Your task to perform on an android device: toggle location history Image 0: 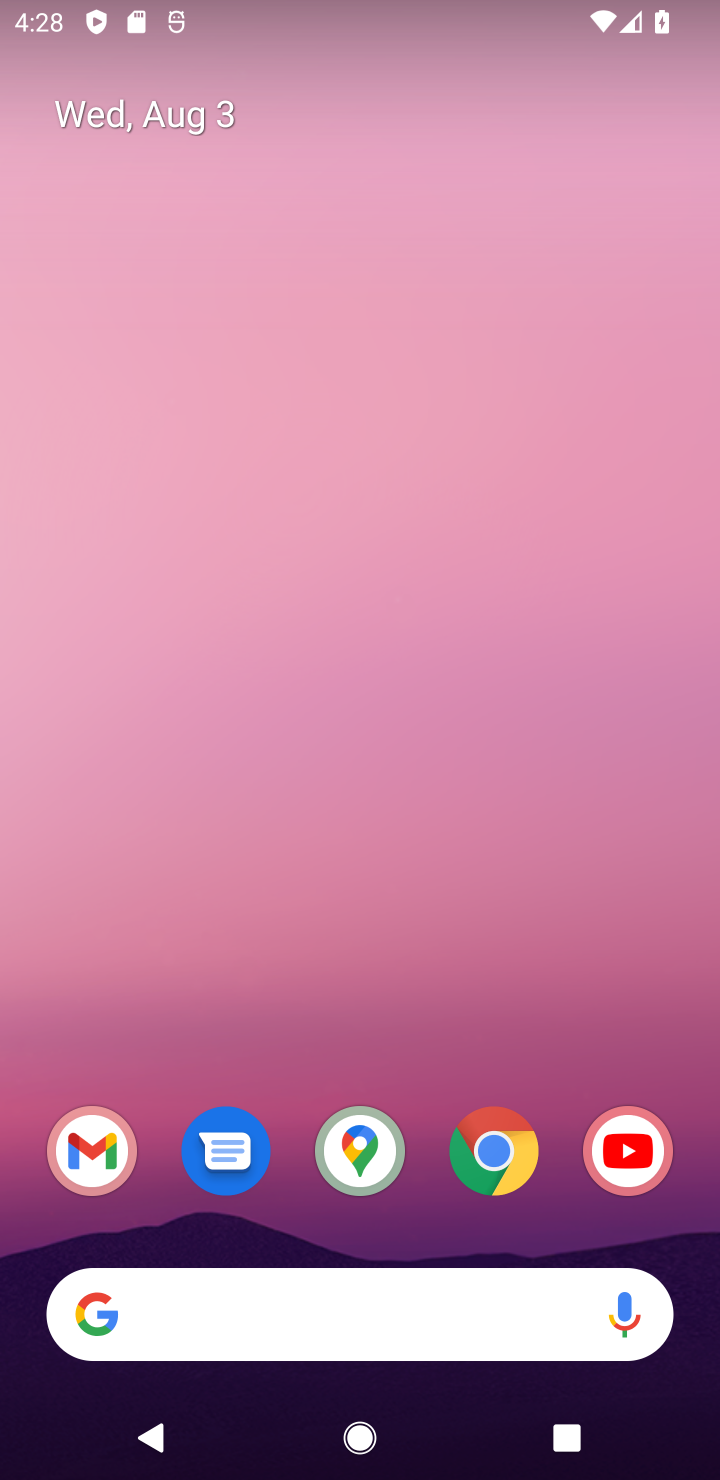
Step 0: drag from (369, 1049) to (314, 503)
Your task to perform on an android device: toggle location history Image 1: 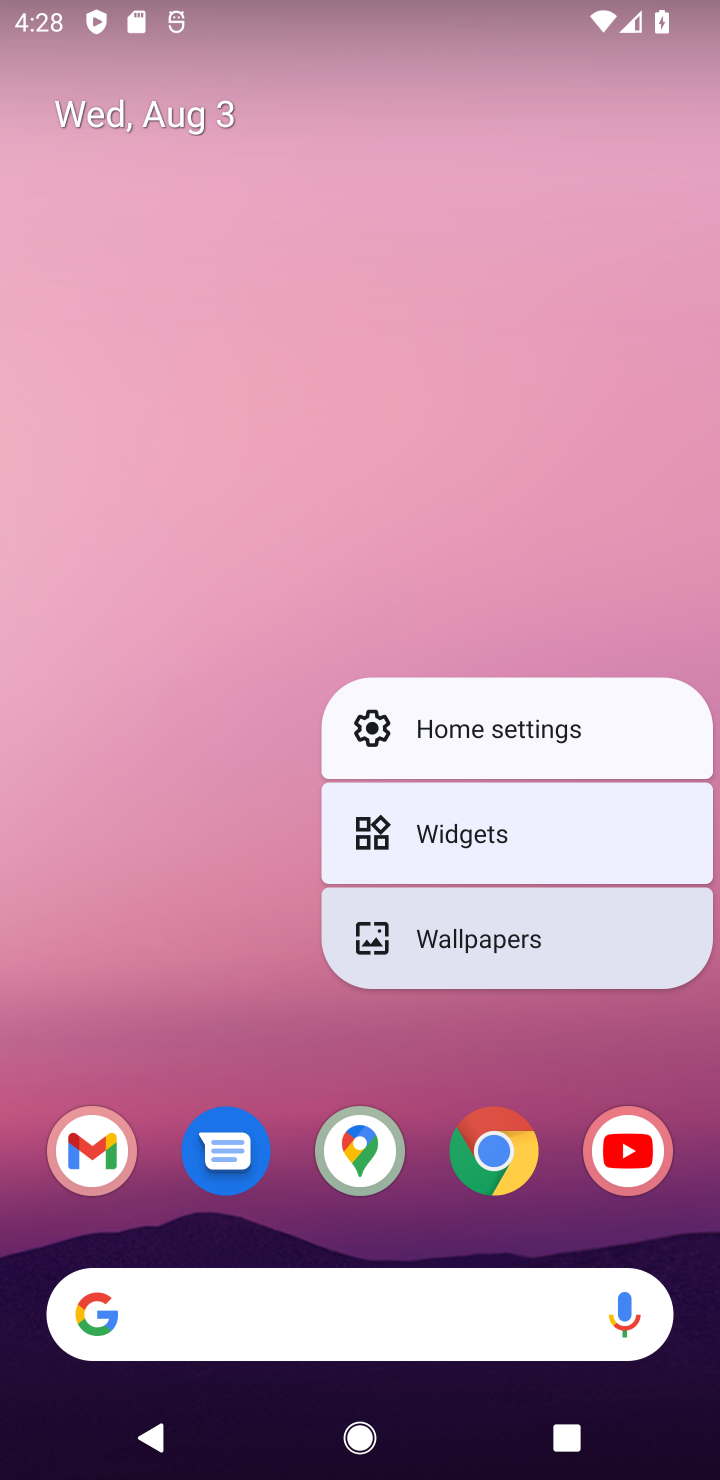
Step 1: click (217, 1037)
Your task to perform on an android device: toggle location history Image 2: 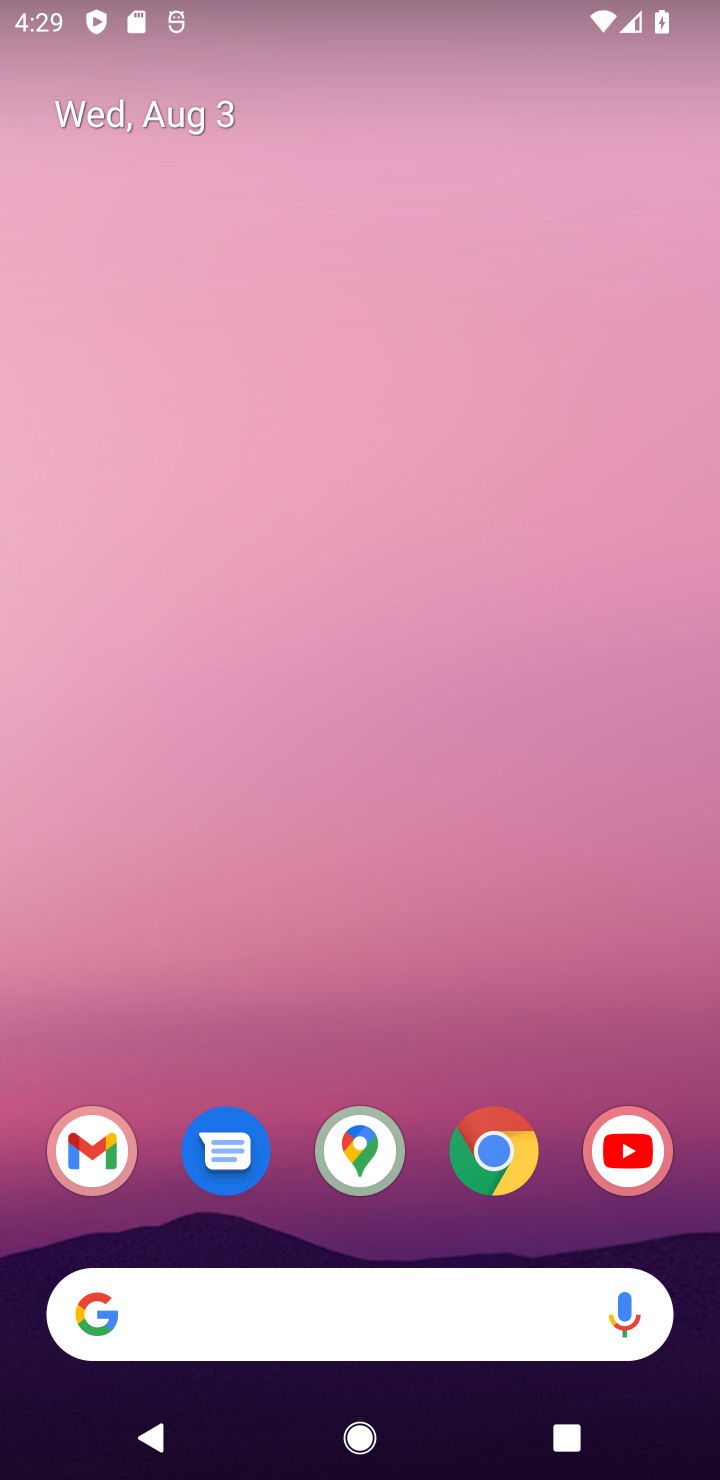
Step 2: drag from (217, 1037) to (222, 357)
Your task to perform on an android device: toggle location history Image 3: 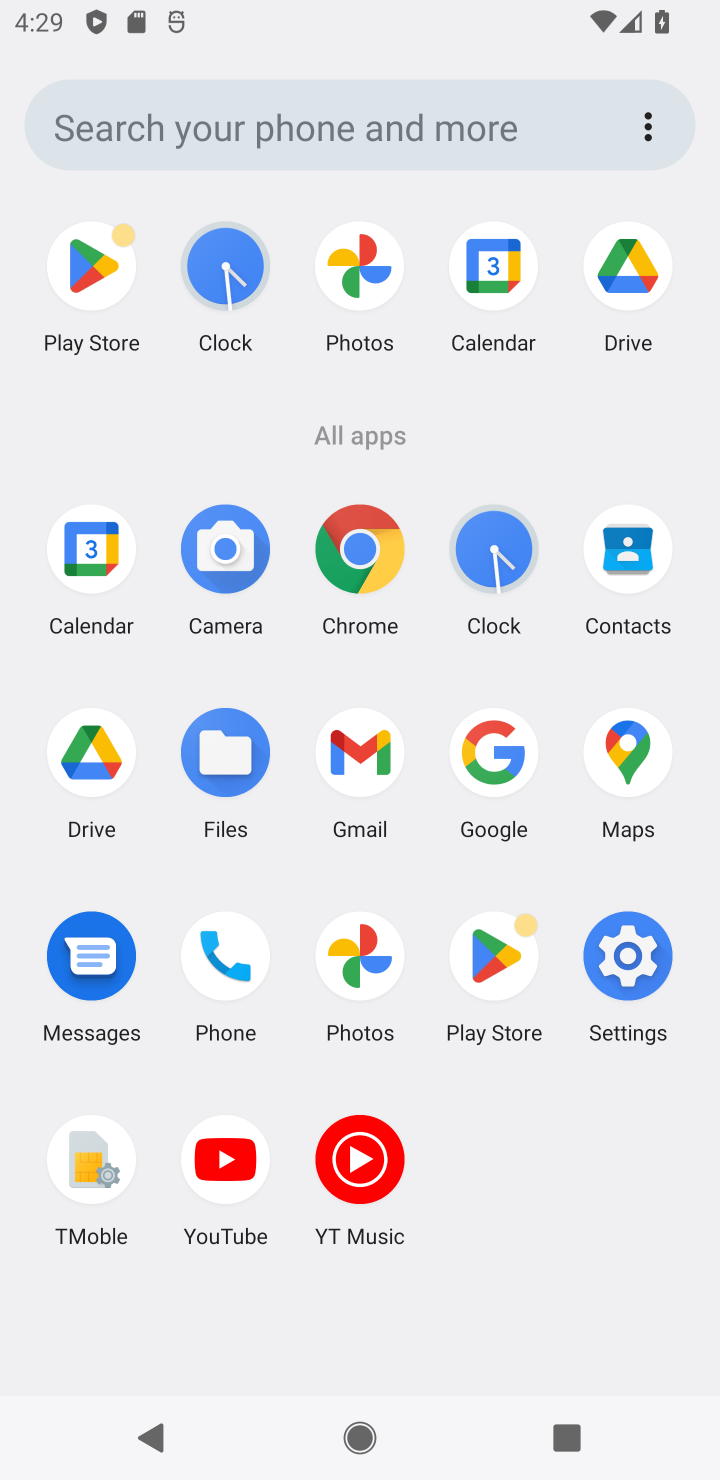
Step 3: click (613, 956)
Your task to perform on an android device: toggle location history Image 4: 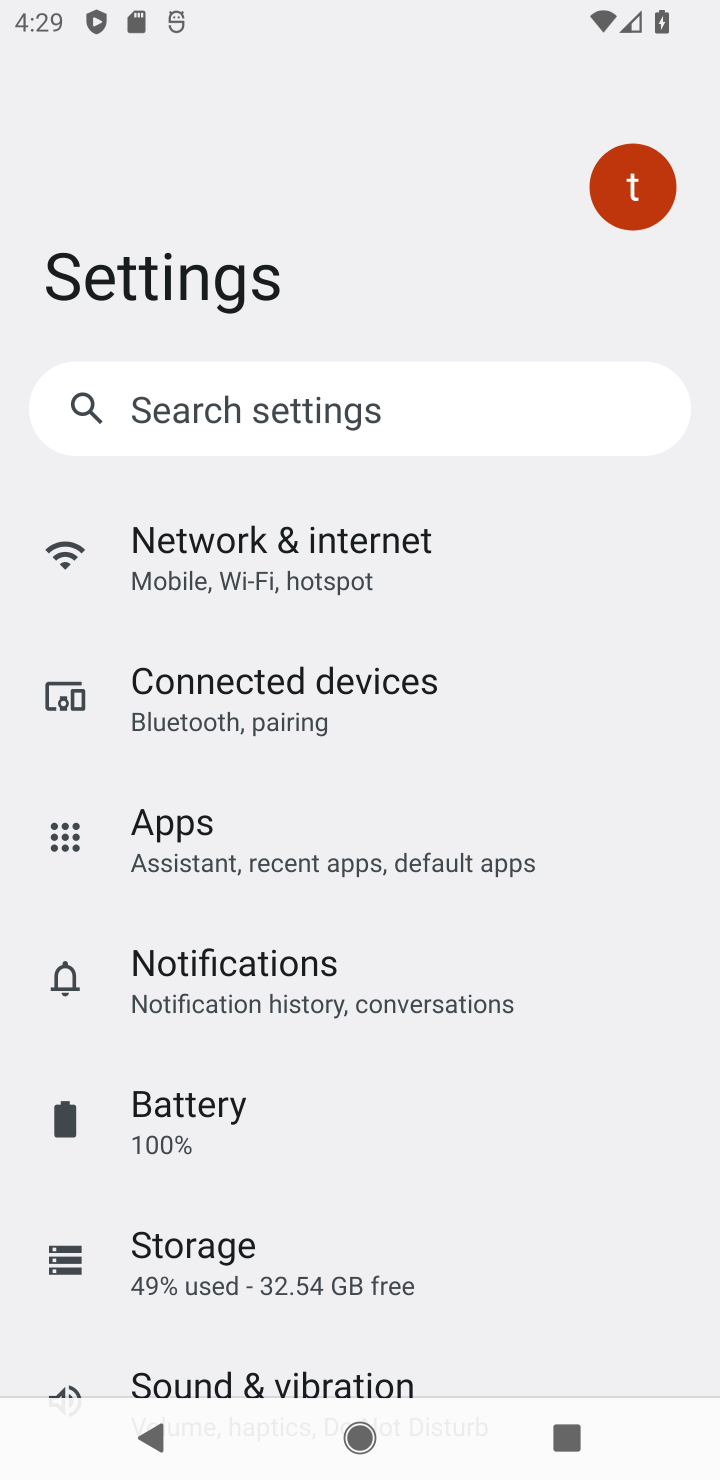
Step 4: drag from (632, 1226) to (538, 445)
Your task to perform on an android device: toggle location history Image 5: 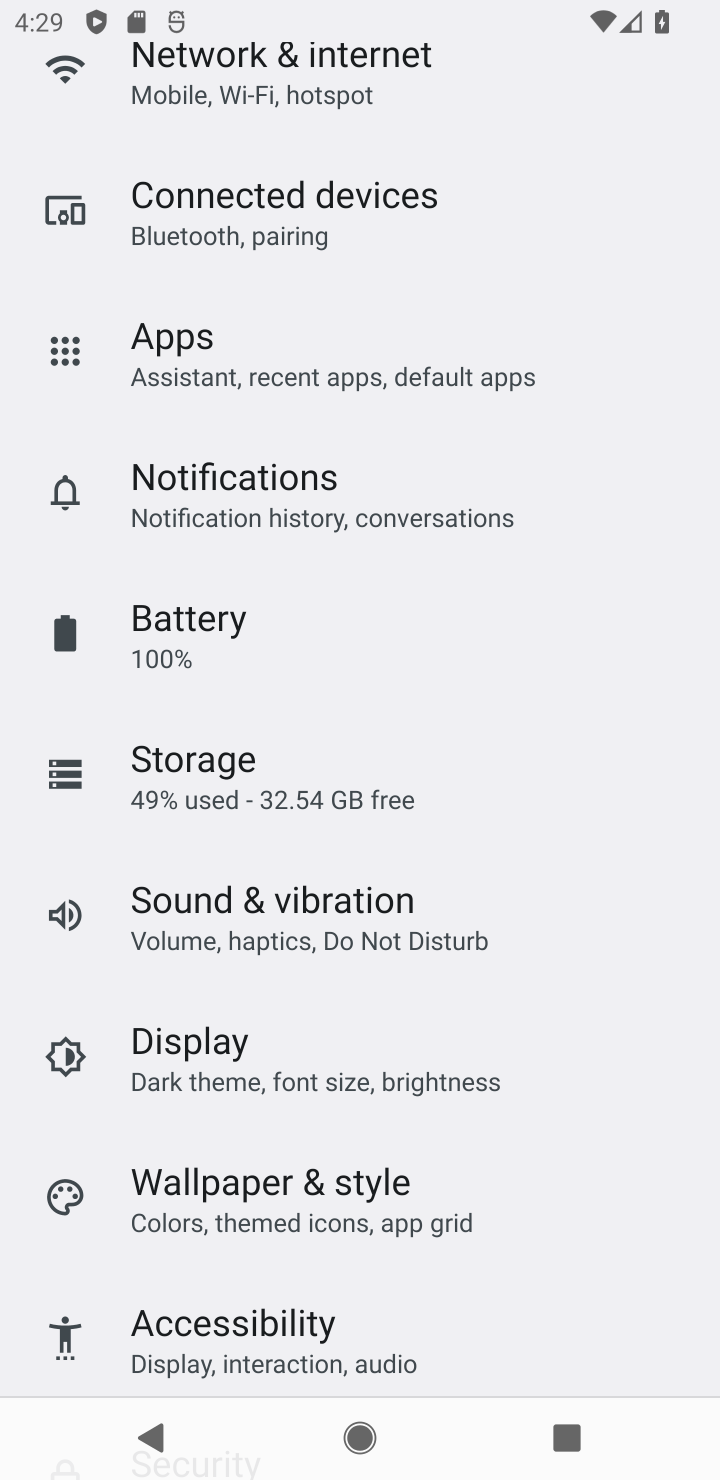
Step 5: drag from (514, 1237) to (381, 555)
Your task to perform on an android device: toggle location history Image 6: 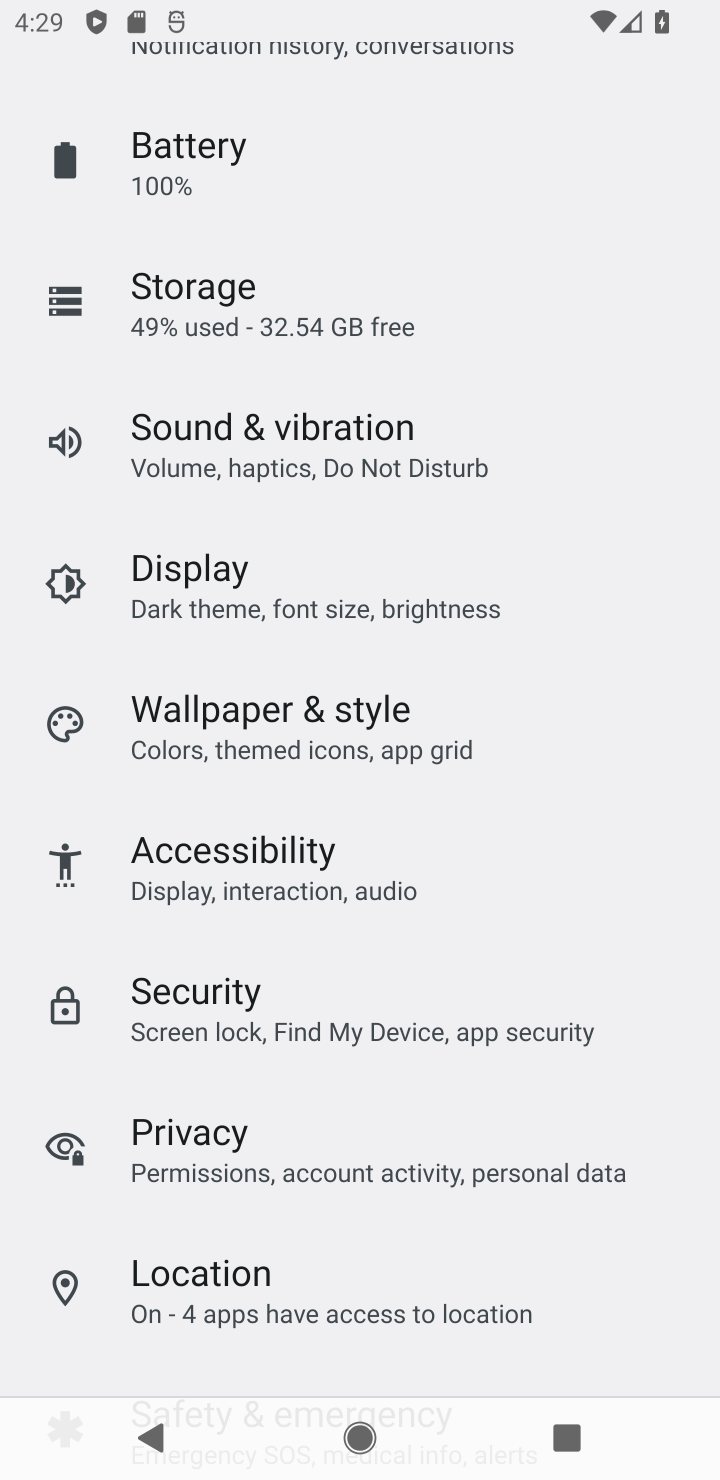
Step 6: click (427, 1285)
Your task to perform on an android device: toggle location history Image 7: 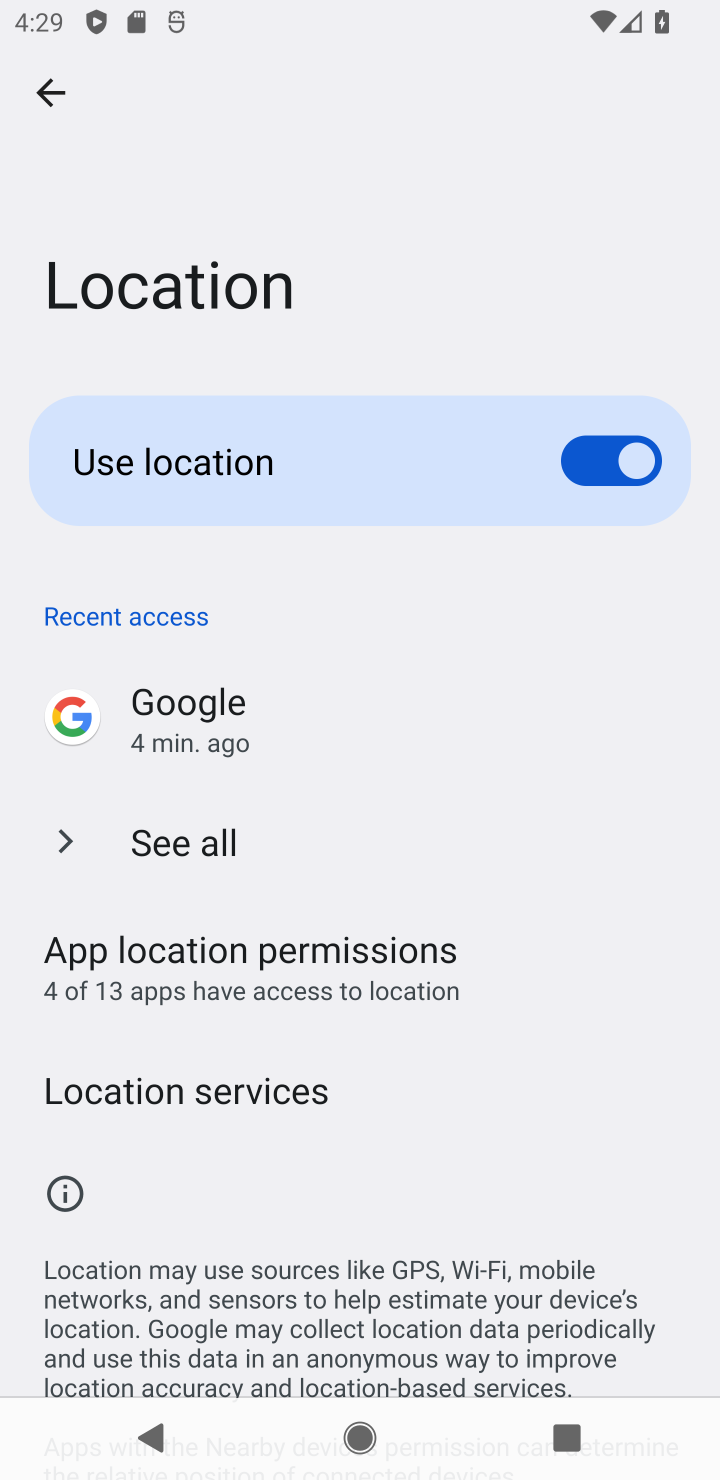
Step 7: drag from (368, 1185) to (344, 785)
Your task to perform on an android device: toggle location history Image 8: 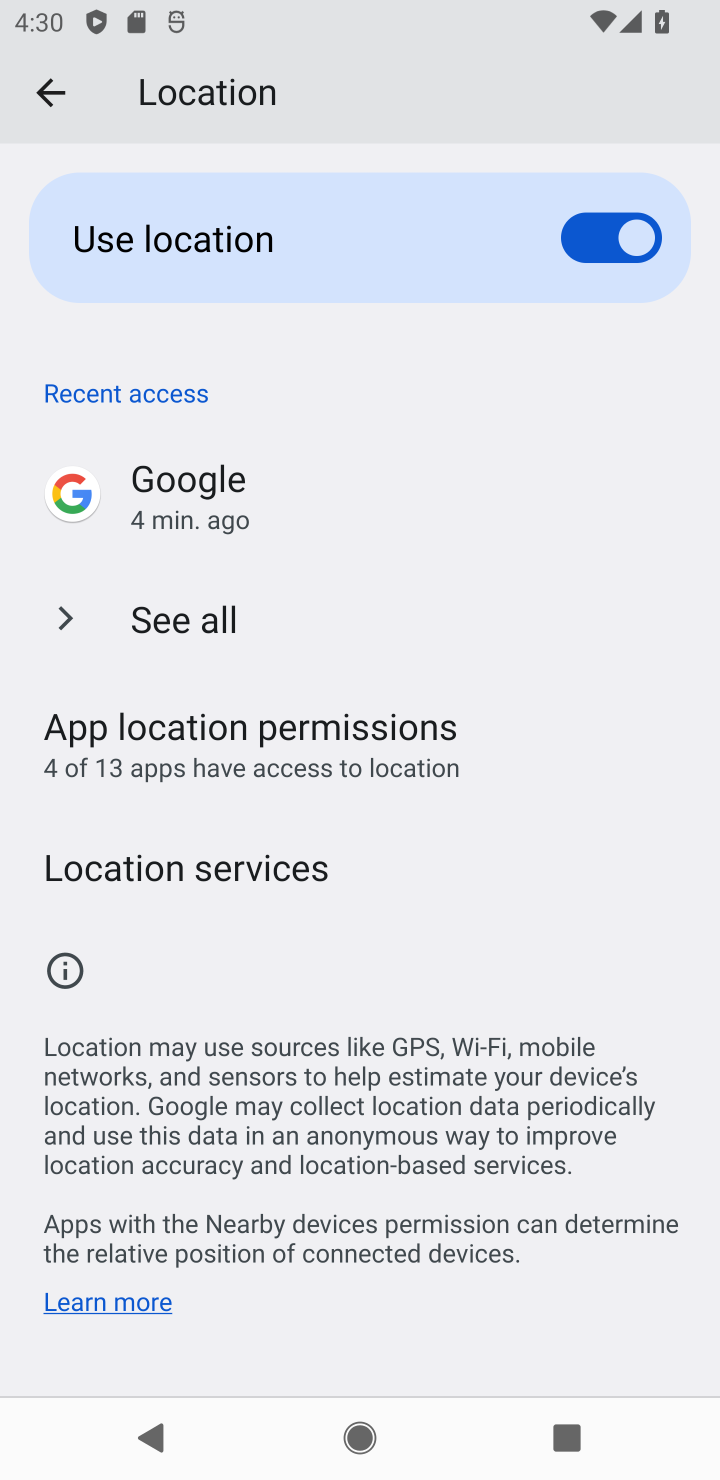
Step 8: click (302, 781)
Your task to perform on an android device: toggle location history Image 9: 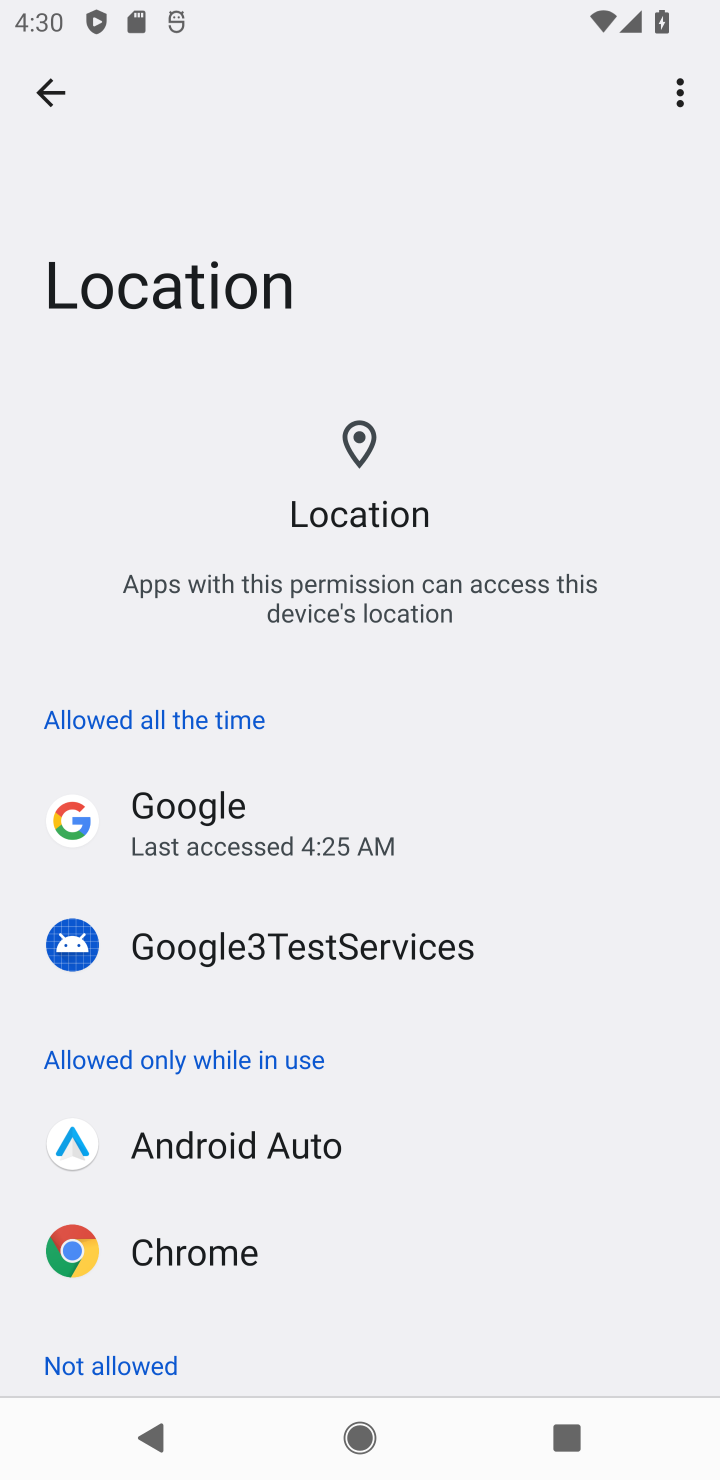
Step 9: click (0, 109)
Your task to perform on an android device: toggle location history Image 10: 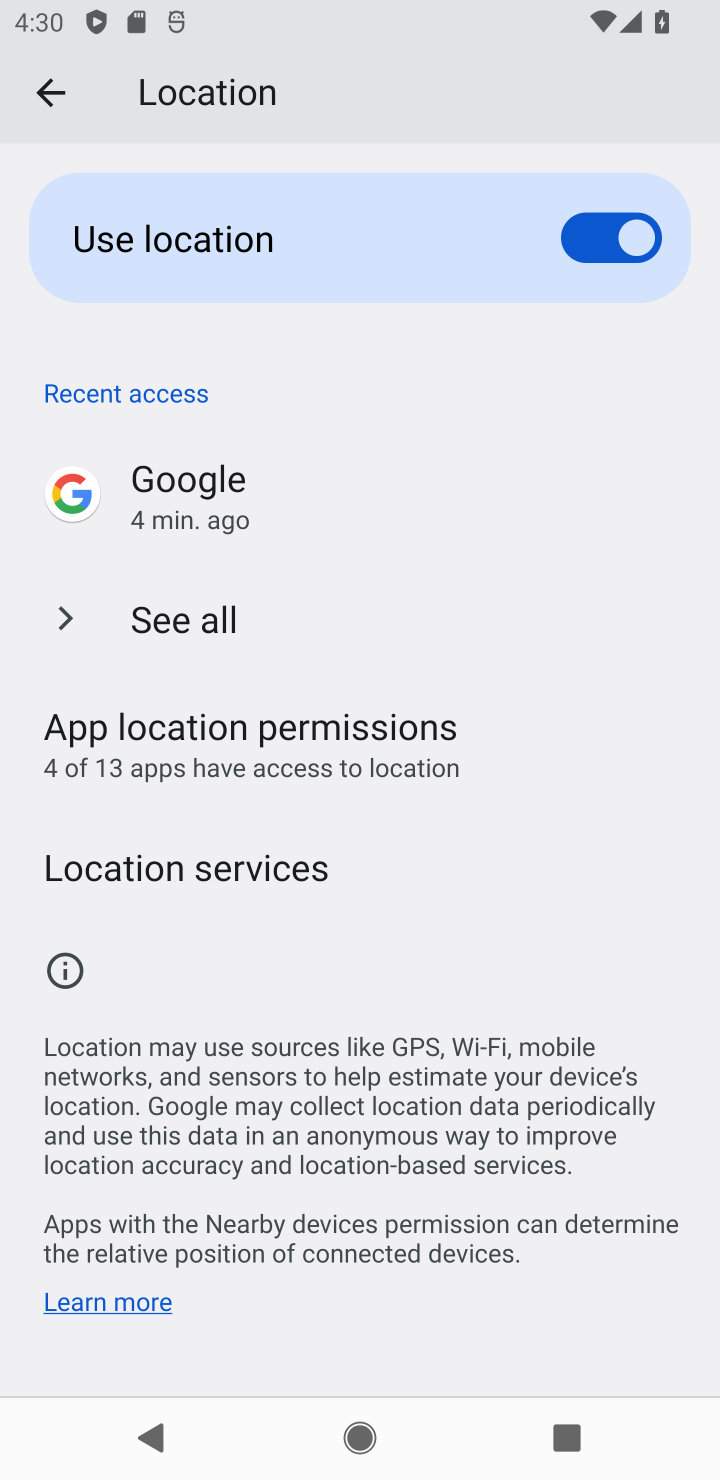
Step 10: click (290, 857)
Your task to perform on an android device: toggle location history Image 11: 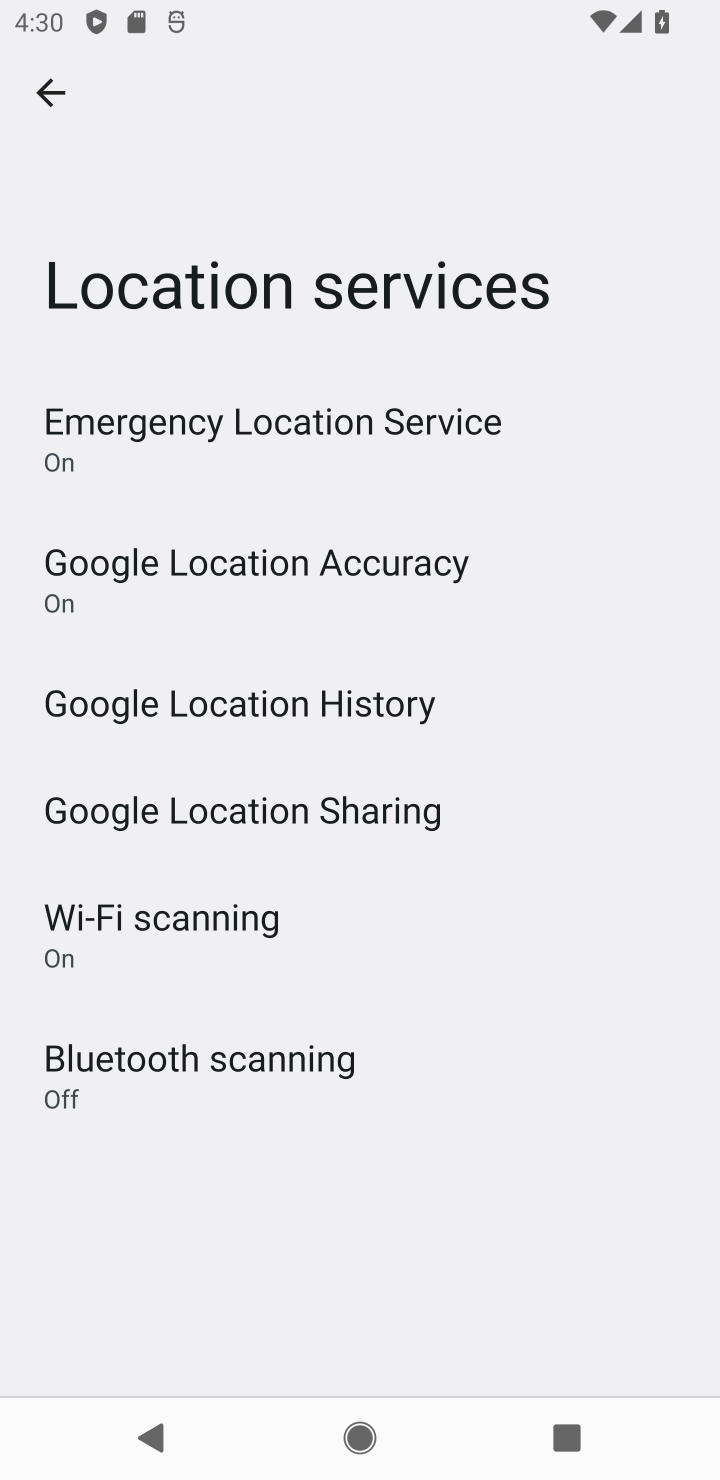
Step 11: click (337, 718)
Your task to perform on an android device: toggle location history Image 12: 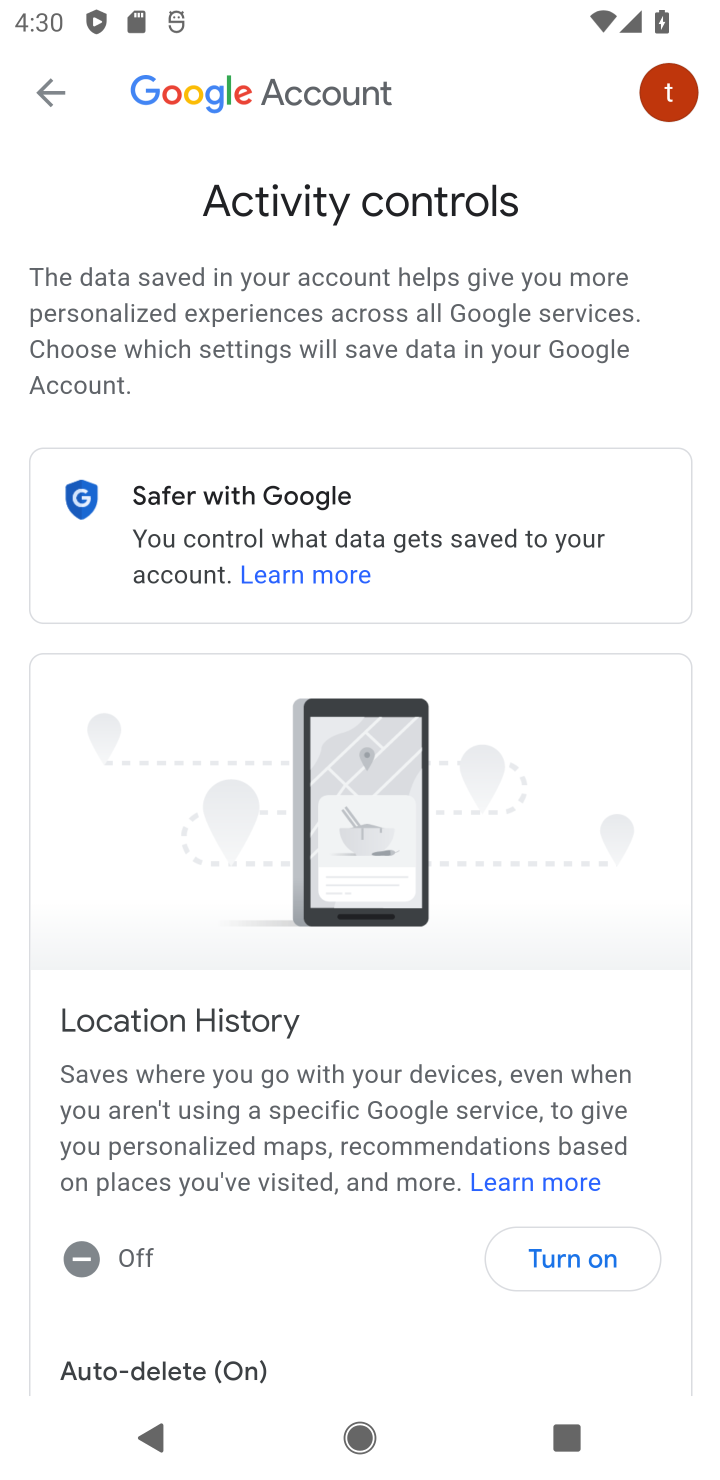
Step 12: click (568, 1251)
Your task to perform on an android device: toggle location history Image 13: 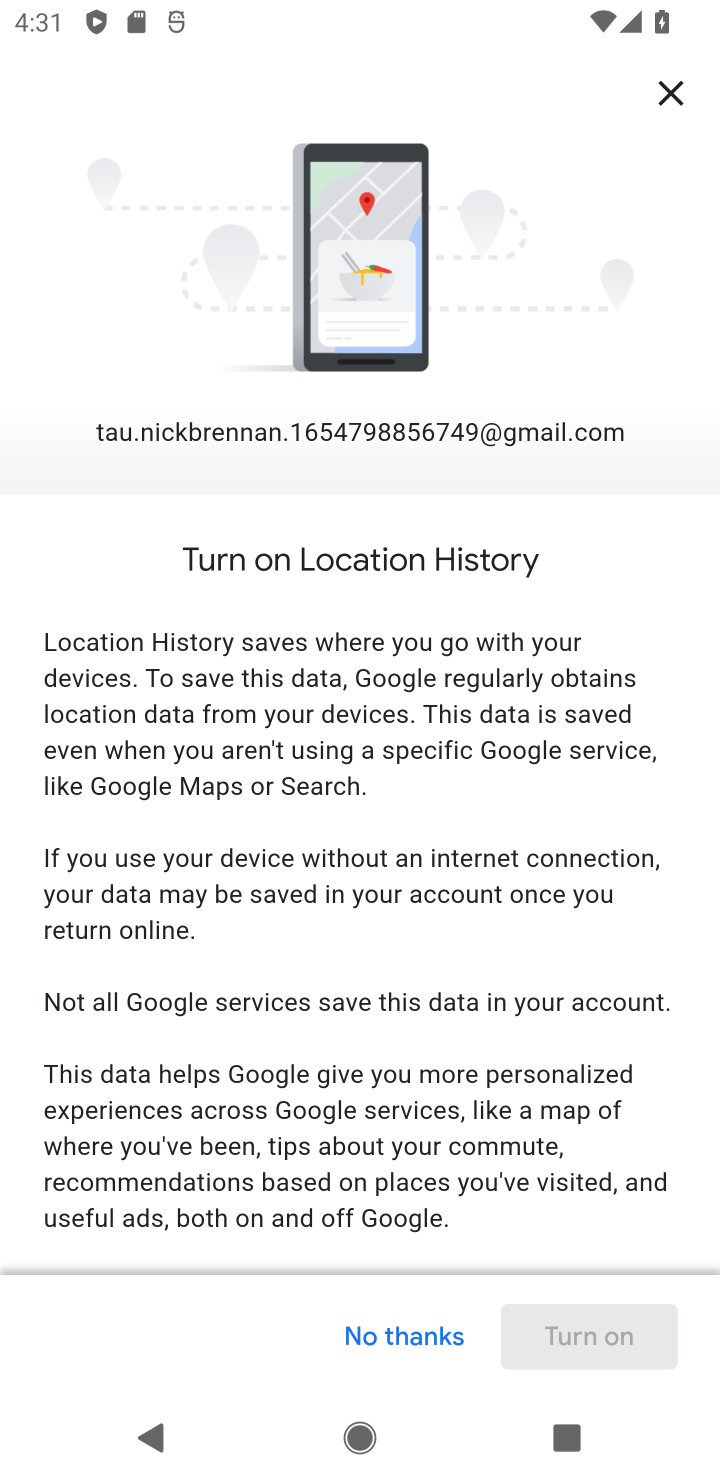
Step 13: drag from (518, 1147) to (514, 557)
Your task to perform on an android device: toggle location history Image 14: 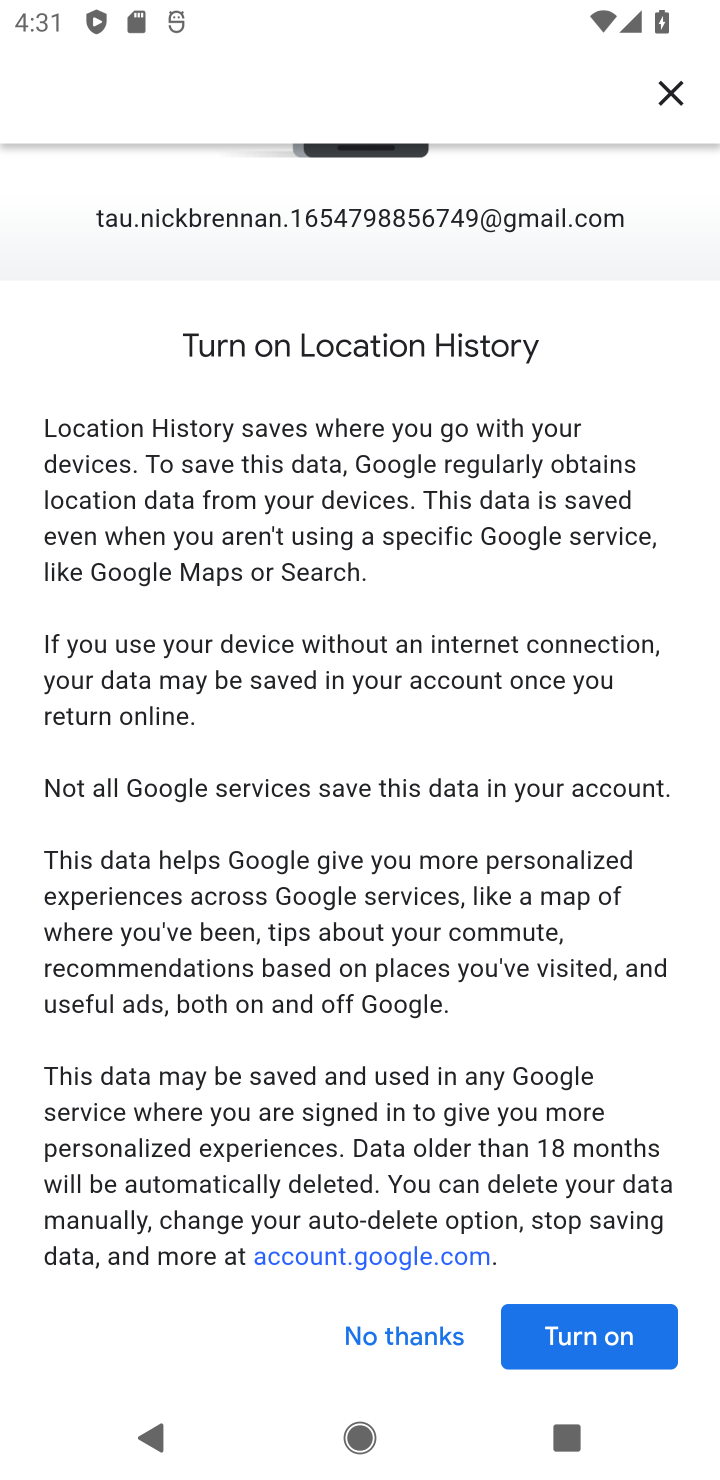
Step 14: click (583, 1335)
Your task to perform on an android device: toggle location history Image 15: 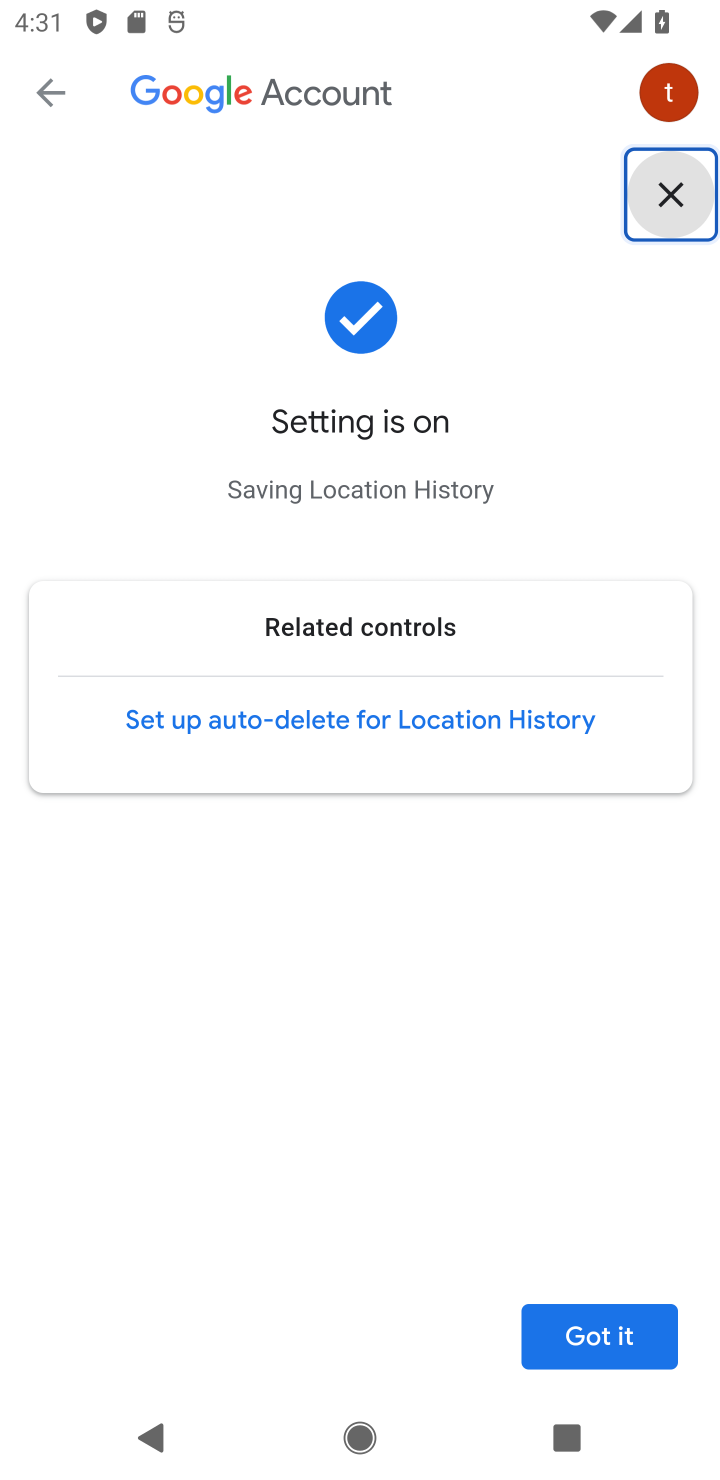
Step 15: task complete